Your task to perform on an android device: turn pop-ups off in chrome Image 0: 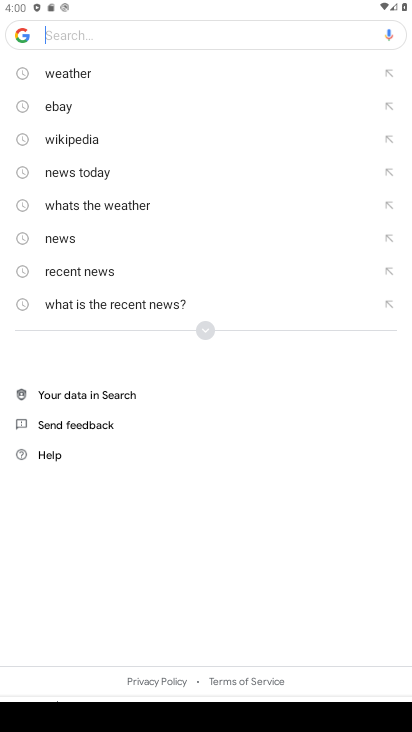
Step 0: press back button
Your task to perform on an android device: turn pop-ups off in chrome Image 1: 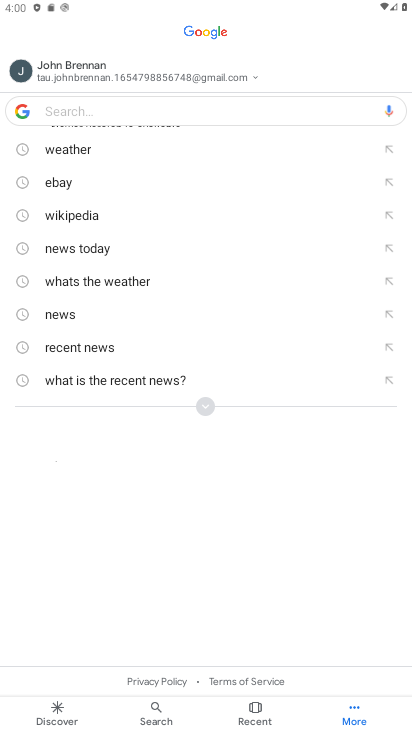
Step 1: press back button
Your task to perform on an android device: turn pop-ups off in chrome Image 2: 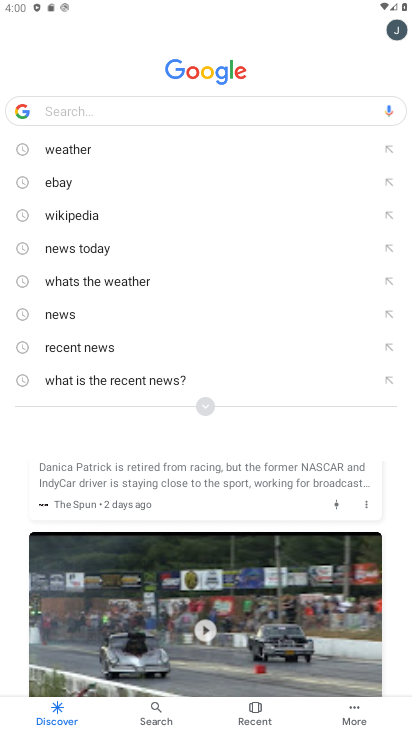
Step 2: drag from (392, 34) to (306, 587)
Your task to perform on an android device: turn pop-ups off in chrome Image 3: 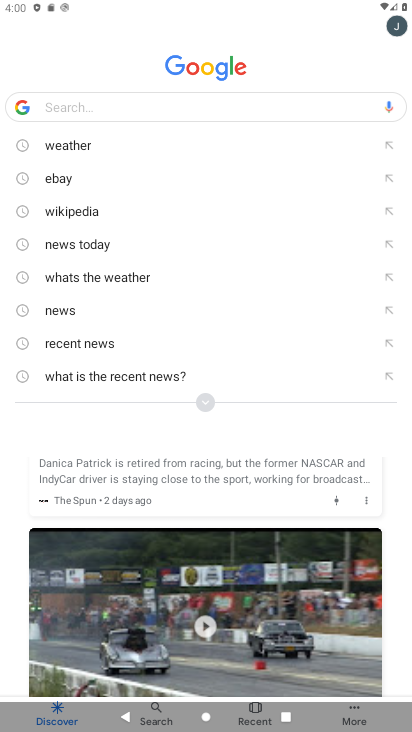
Step 3: drag from (394, 29) to (394, 352)
Your task to perform on an android device: turn pop-ups off in chrome Image 4: 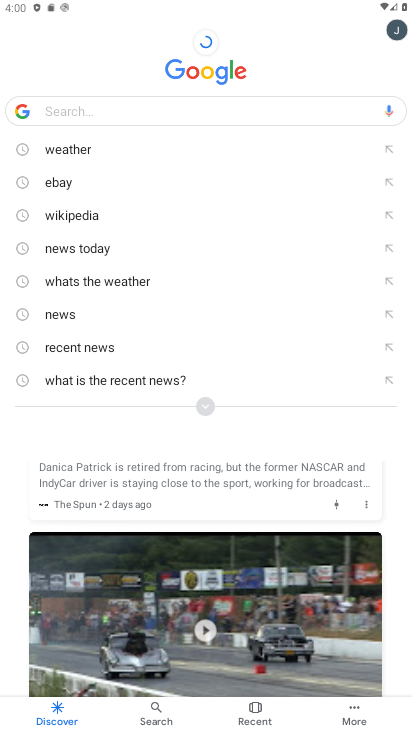
Step 4: drag from (395, 23) to (368, 332)
Your task to perform on an android device: turn pop-ups off in chrome Image 5: 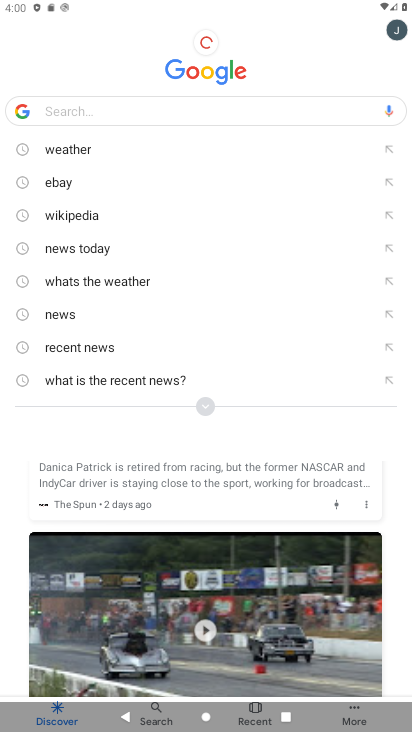
Step 5: drag from (391, 32) to (354, 295)
Your task to perform on an android device: turn pop-ups off in chrome Image 6: 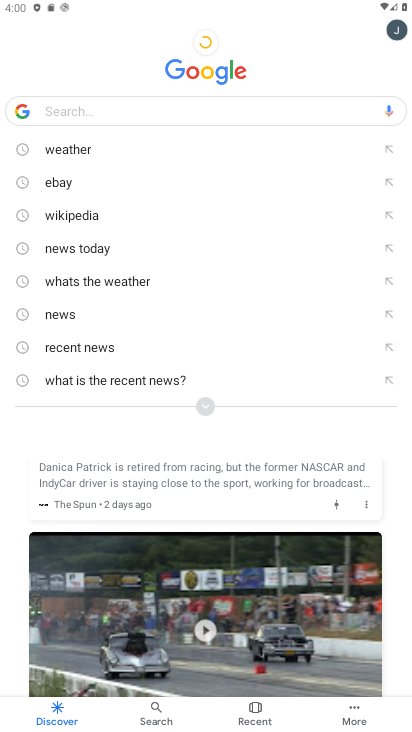
Step 6: click (390, 45)
Your task to perform on an android device: turn pop-ups off in chrome Image 7: 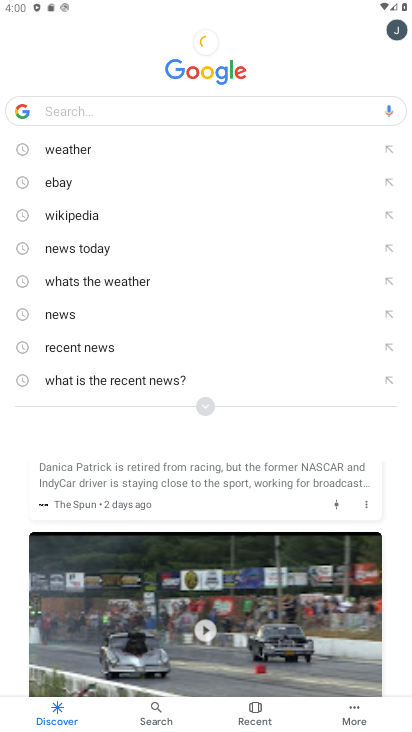
Step 7: click (390, 45)
Your task to perform on an android device: turn pop-ups off in chrome Image 8: 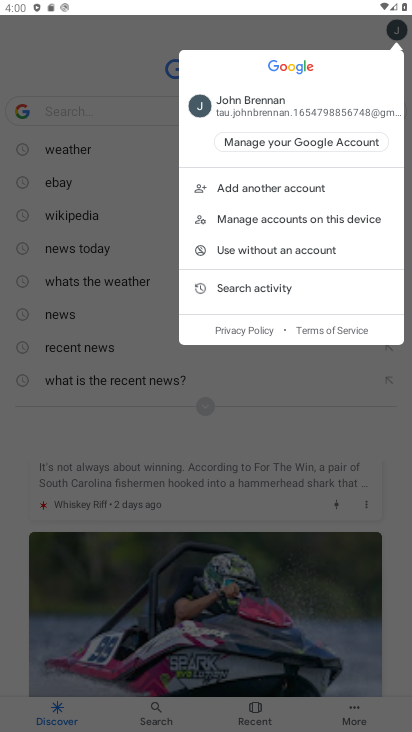
Step 8: click (252, 339)
Your task to perform on an android device: turn pop-ups off in chrome Image 9: 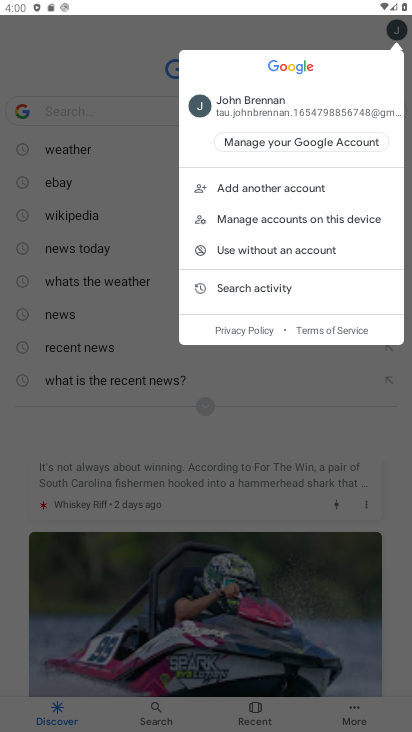
Step 9: drag from (254, 334) to (288, 325)
Your task to perform on an android device: turn pop-ups off in chrome Image 10: 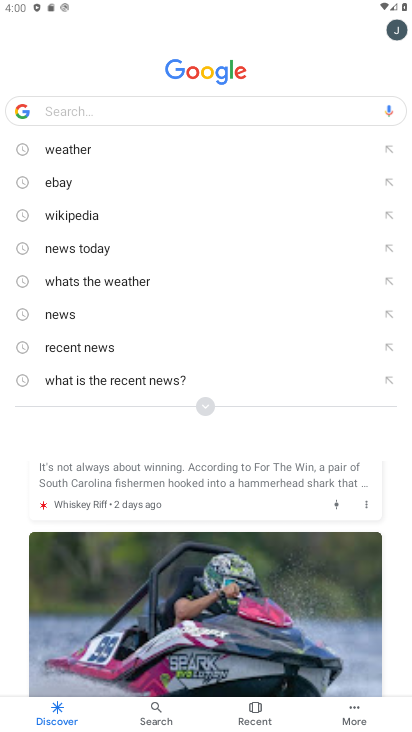
Step 10: press back button
Your task to perform on an android device: turn pop-ups off in chrome Image 11: 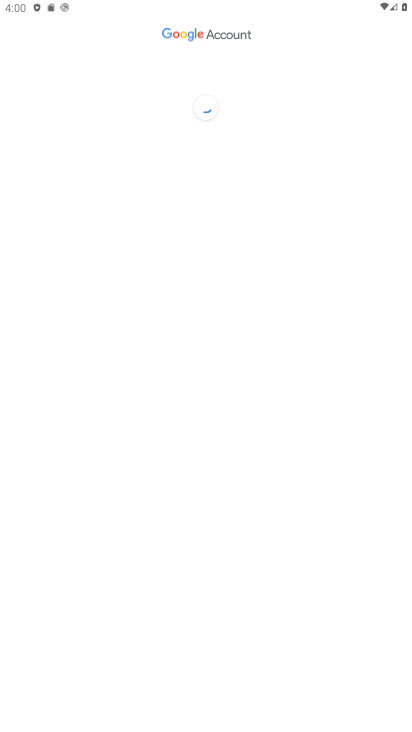
Step 11: press back button
Your task to perform on an android device: turn pop-ups off in chrome Image 12: 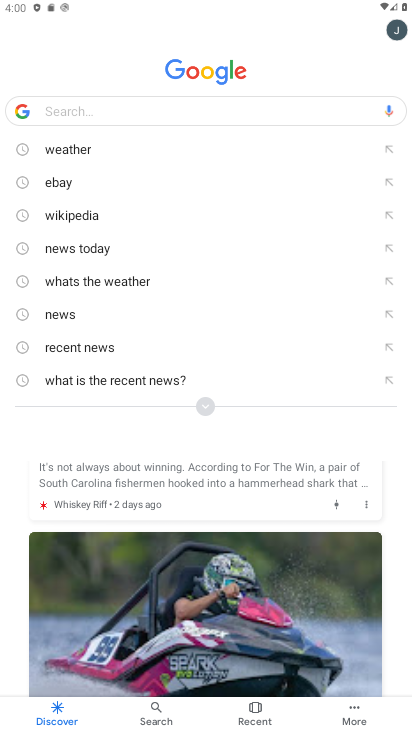
Step 12: press home button
Your task to perform on an android device: turn pop-ups off in chrome Image 13: 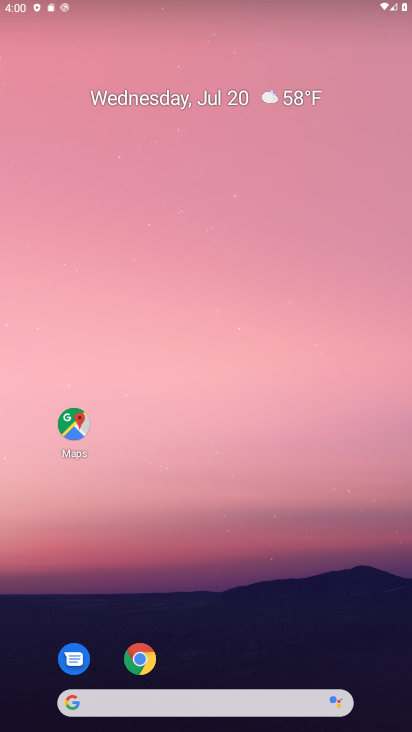
Step 13: press back button
Your task to perform on an android device: turn pop-ups off in chrome Image 14: 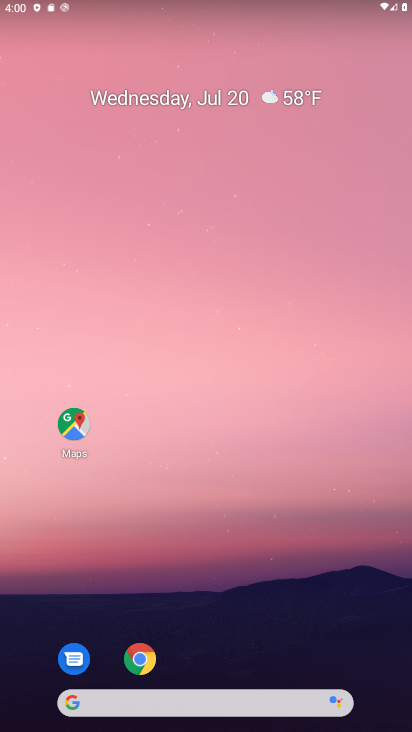
Step 14: drag from (234, 510) to (224, 186)
Your task to perform on an android device: turn pop-ups off in chrome Image 15: 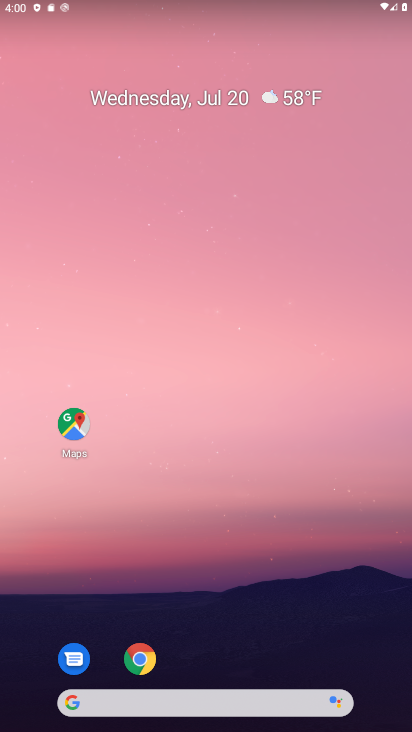
Step 15: drag from (241, 586) to (192, 216)
Your task to perform on an android device: turn pop-ups off in chrome Image 16: 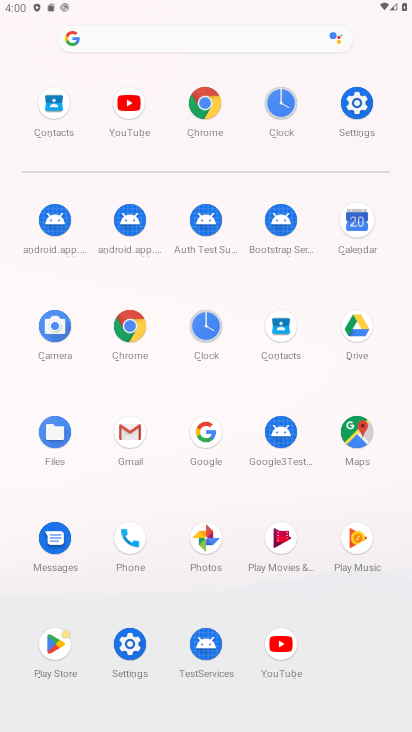
Step 16: click (205, 109)
Your task to perform on an android device: turn pop-ups off in chrome Image 17: 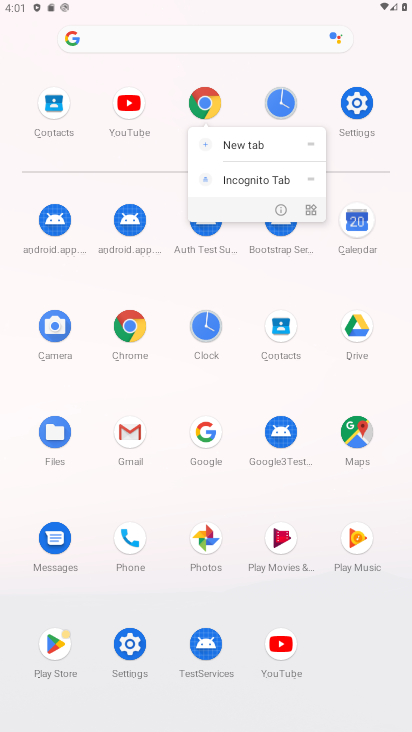
Step 17: click (273, 210)
Your task to perform on an android device: turn pop-ups off in chrome Image 18: 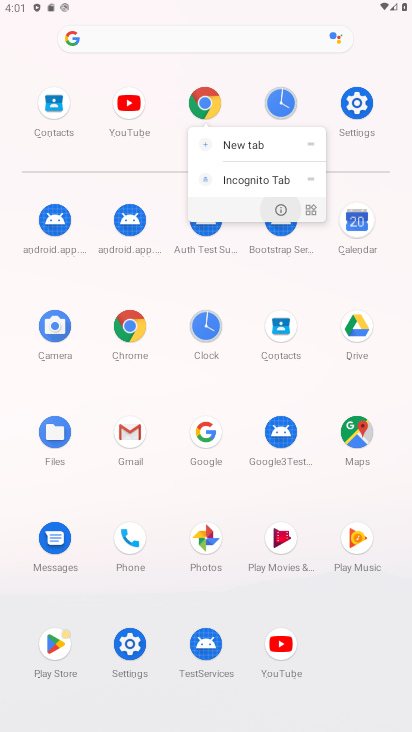
Step 18: click (275, 208)
Your task to perform on an android device: turn pop-ups off in chrome Image 19: 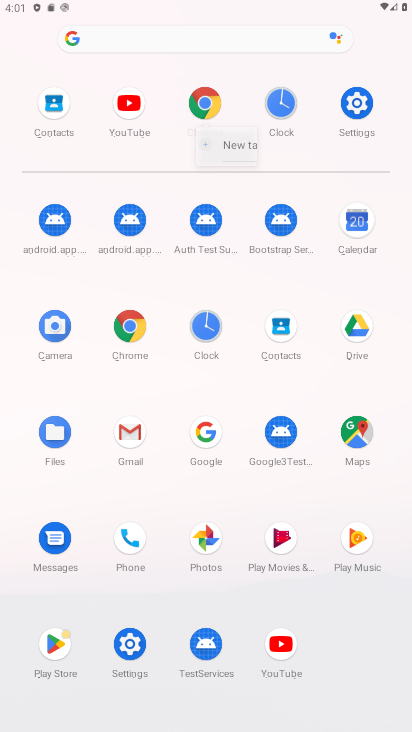
Step 19: click (275, 208)
Your task to perform on an android device: turn pop-ups off in chrome Image 20: 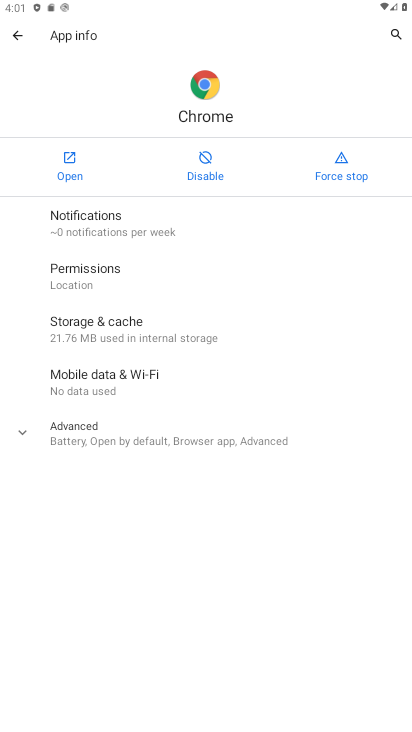
Step 20: click (84, 229)
Your task to perform on an android device: turn pop-ups off in chrome Image 21: 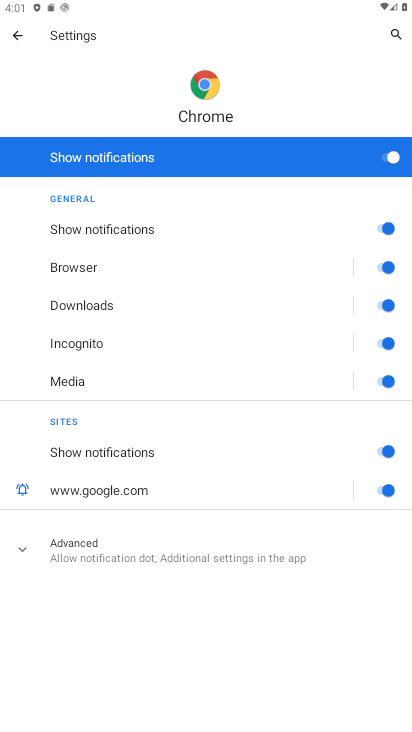
Step 21: click (82, 548)
Your task to perform on an android device: turn pop-ups off in chrome Image 22: 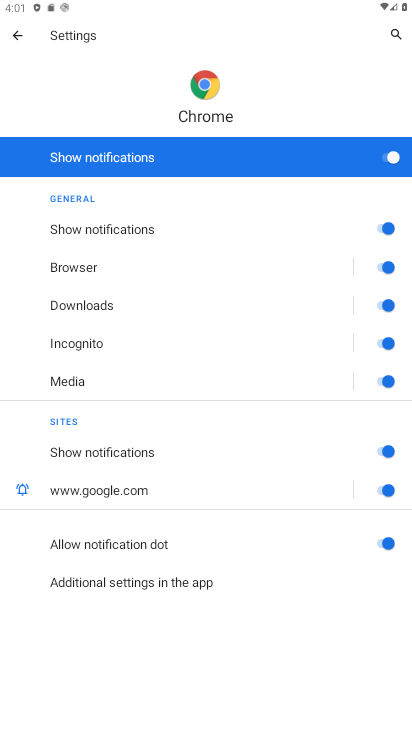
Step 22: click (12, 40)
Your task to perform on an android device: turn pop-ups off in chrome Image 23: 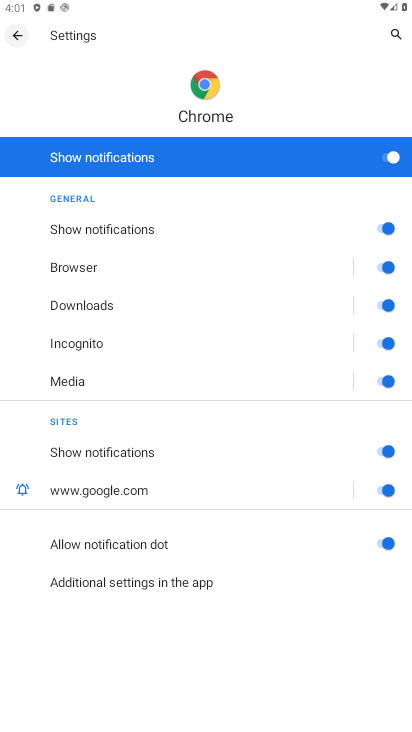
Step 23: click (11, 39)
Your task to perform on an android device: turn pop-ups off in chrome Image 24: 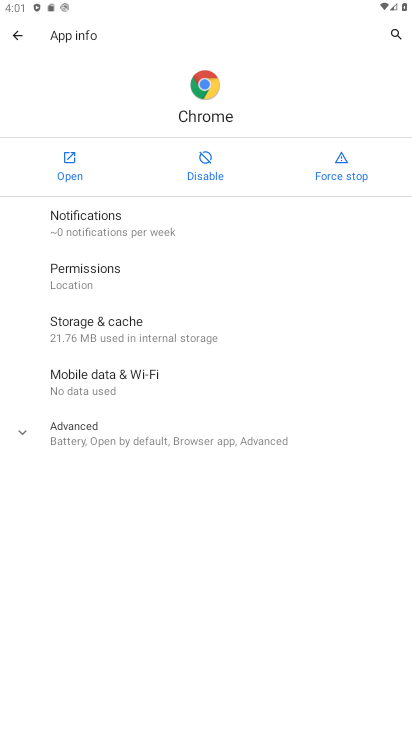
Step 24: click (76, 440)
Your task to perform on an android device: turn pop-ups off in chrome Image 25: 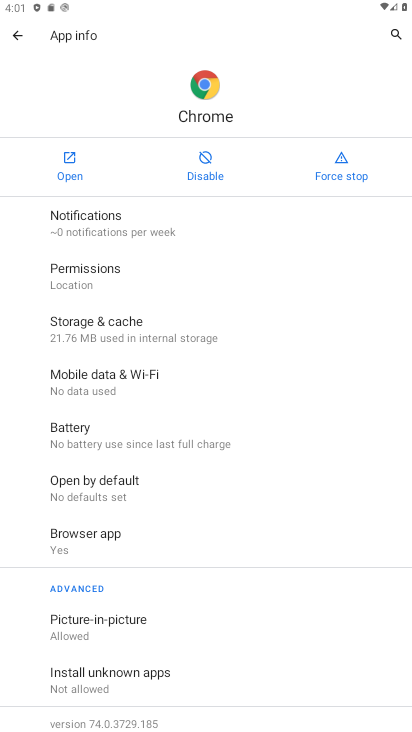
Step 25: click (66, 621)
Your task to perform on an android device: turn pop-ups off in chrome Image 26: 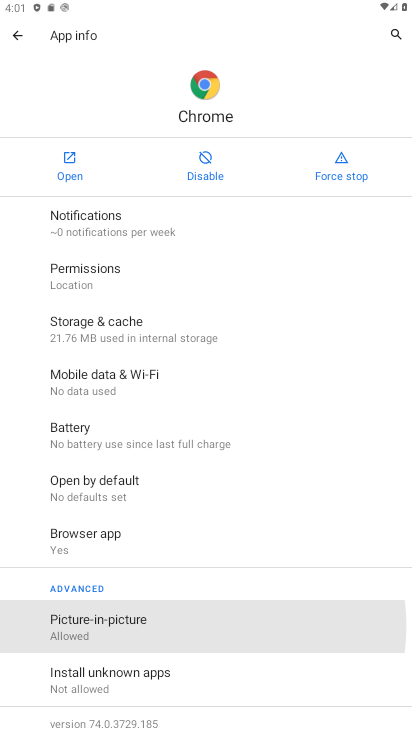
Step 26: click (64, 623)
Your task to perform on an android device: turn pop-ups off in chrome Image 27: 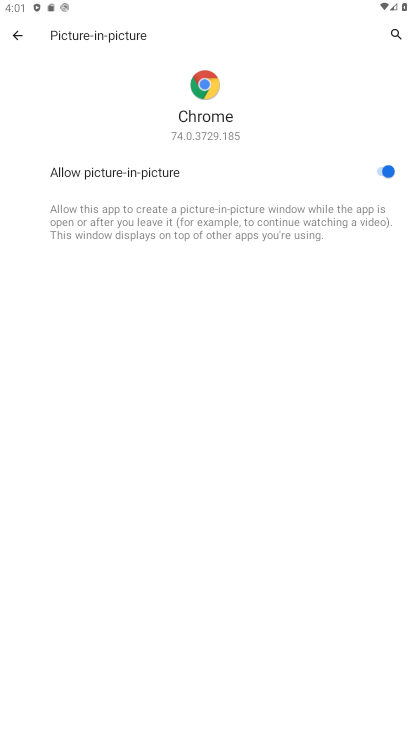
Step 27: click (15, 39)
Your task to perform on an android device: turn pop-ups off in chrome Image 28: 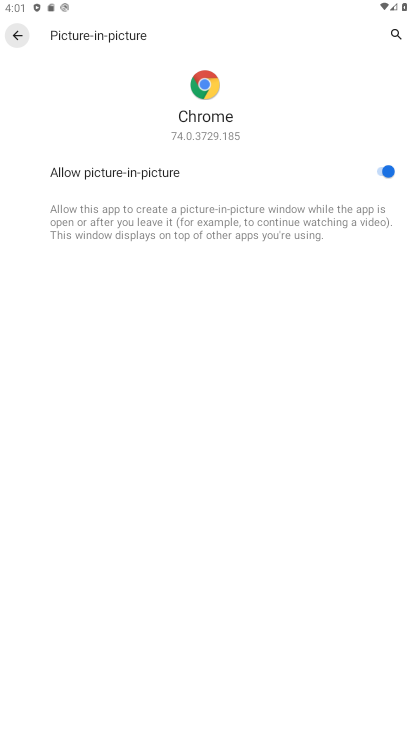
Step 28: click (16, 26)
Your task to perform on an android device: turn pop-ups off in chrome Image 29: 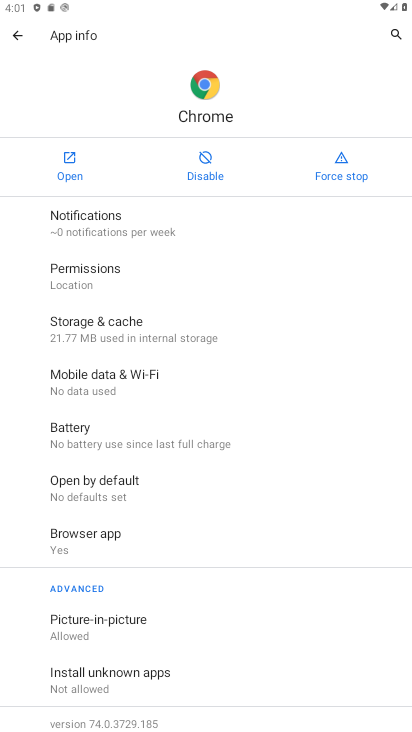
Step 29: click (23, 47)
Your task to perform on an android device: turn pop-ups off in chrome Image 30: 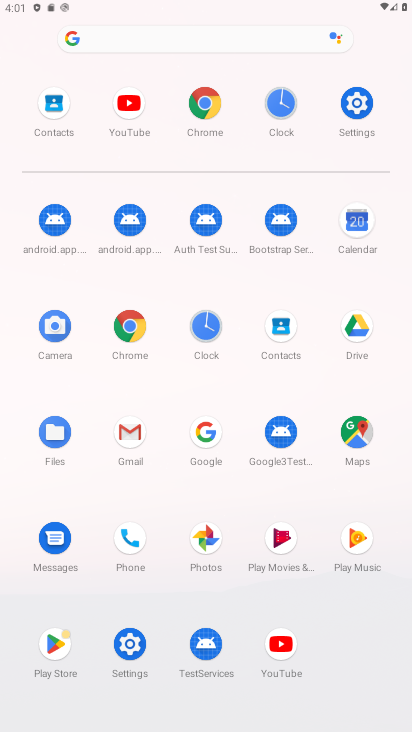
Step 30: click (202, 118)
Your task to perform on an android device: turn pop-ups off in chrome Image 31: 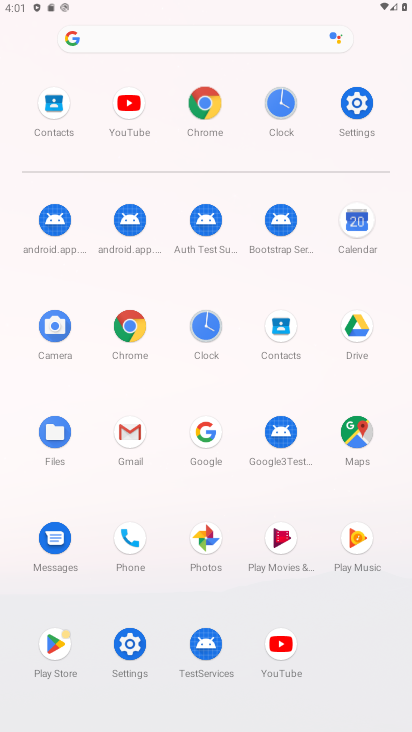
Step 31: click (203, 114)
Your task to perform on an android device: turn pop-ups off in chrome Image 32: 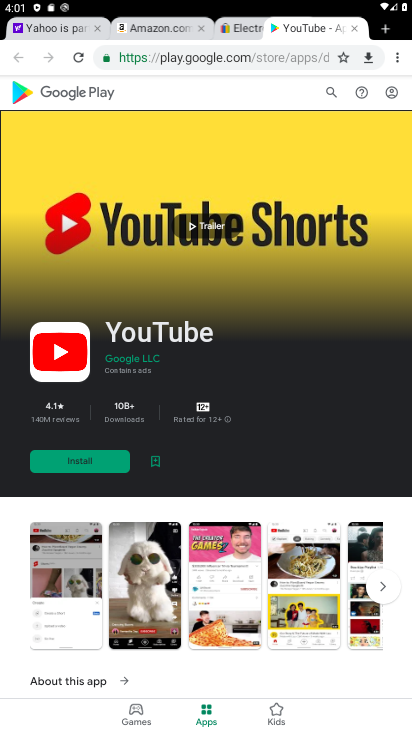
Step 32: drag from (388, 60) to (275, 382)
Your task to perform on an android device: turn pop-ups off in chrome Image 33: 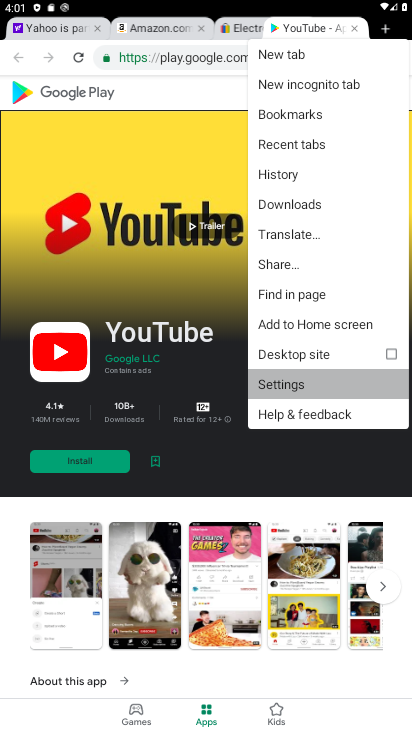
Step 33: click (275, 383)
Your task to perform on an android device: turn pop-ups off in chrome Image 34: 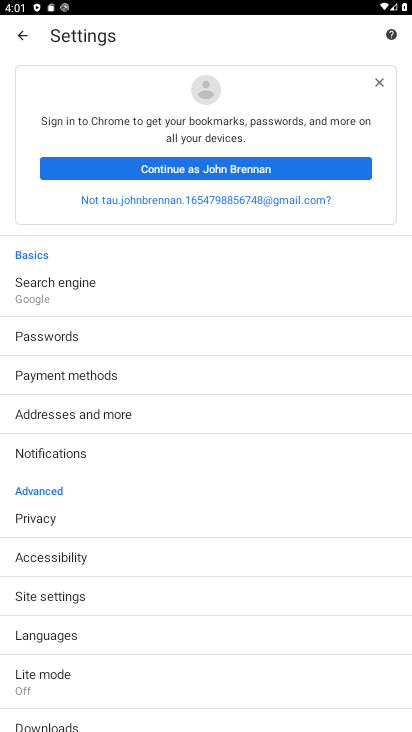
Step 34: drag from (108, 642) to (66, 172)
Your task to perform on an android device: turn pop-ups off in chrome Image 35: 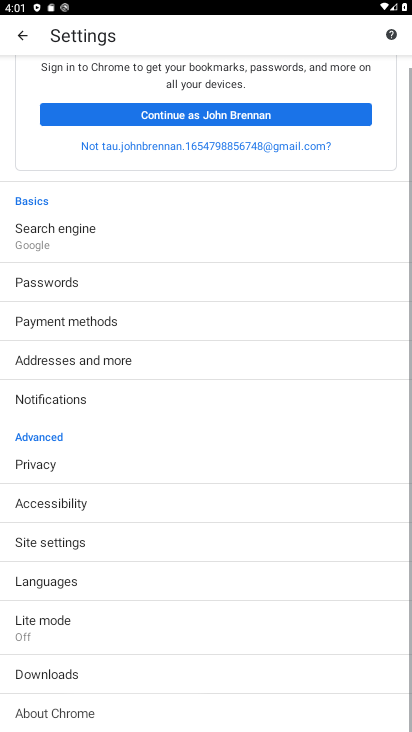
Step 35: drag from (86, 510) to (65, 236)
Your task to perform on an android device: turn pop-ups off in chrome Image 36: 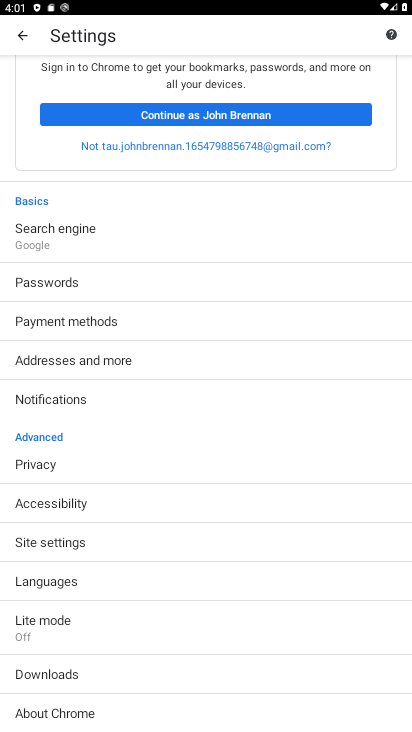
Step 36: drag from (85, 616) to (72, 298)
Your task to perform on an android device: turn pop-ups off in chrome Image 37: 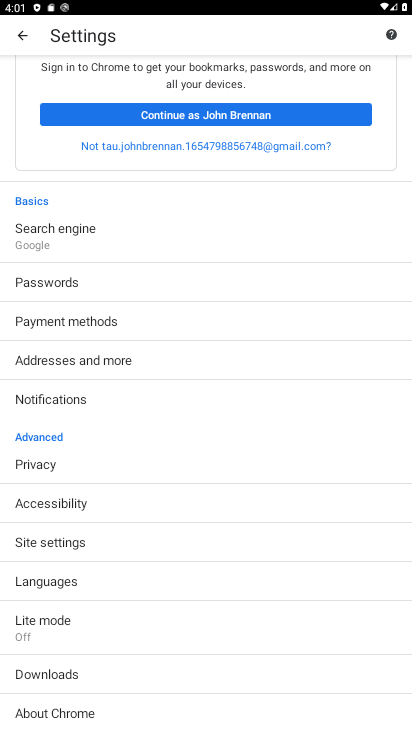
Step 37: drag from (103, 545) to (16, 100)
Your task to perform on an android device: turn pop-ups off in chrome Image 38: 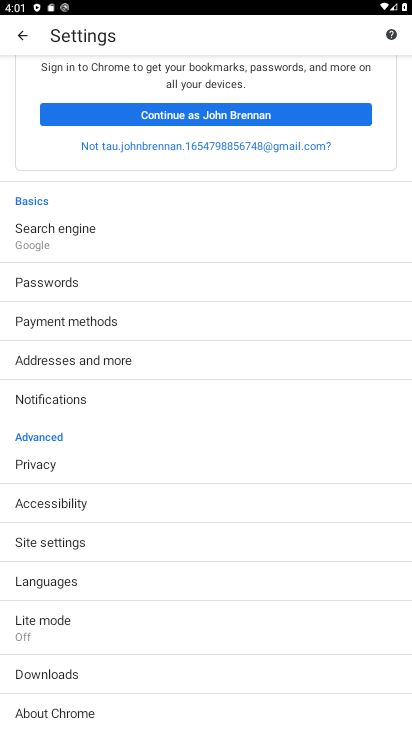
Step 38: drag from (60, 547) to (17, 283)
Your task to perform on an android device: turn pop-ups off in chrome Image 39: 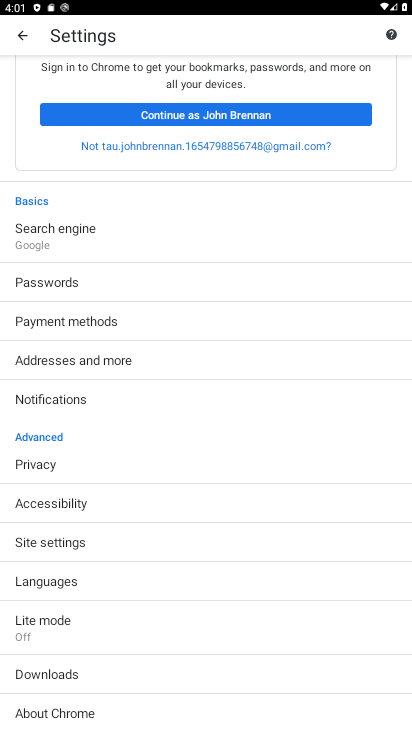
Step 39: drag from (83, 561) to (40, 283)
Your task to perform on an android device: turn pop-ups off in chrome Image 40: 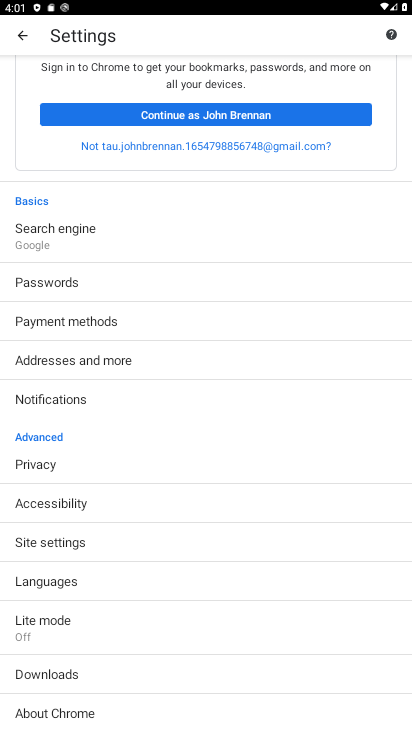
Step 40: drag from (75, 572) to (64, 266)
Your task to perform on an android device: turn pop-ups off in chrome Image 41: 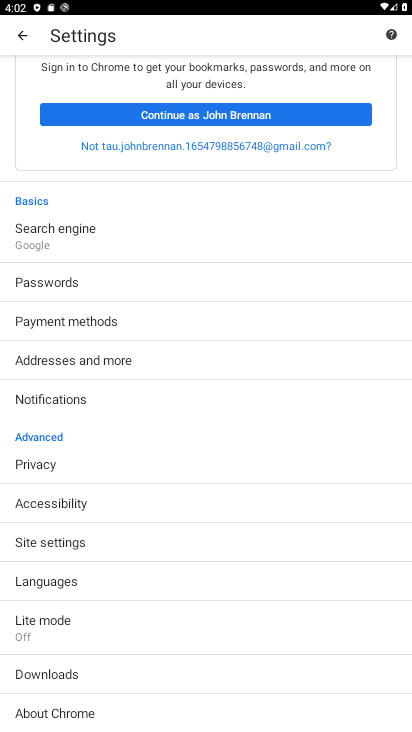
Step 41: click (35, 542)
Your task to perform on an android device: turn pop-ups off in chrome Image 42: 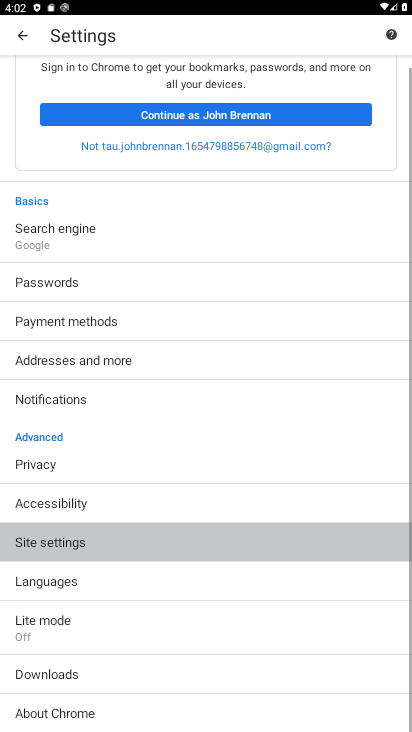
Step 42: click (36, 541)
Your task to perform on an android device: turn pop-ups off in chrome Image 43: 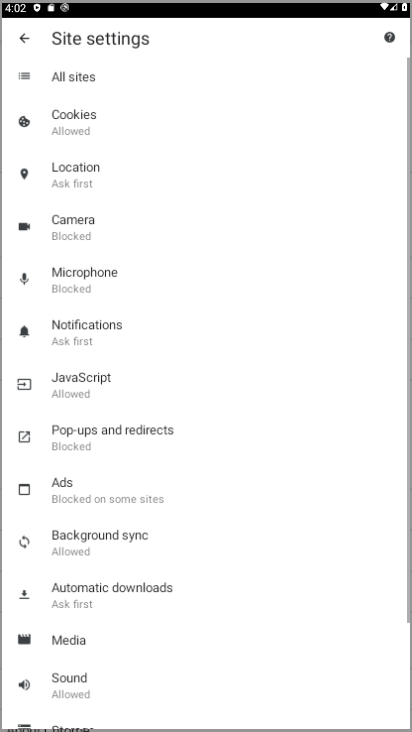
Step 43: click (40, 541)
Your task to perform on an android device: turn pop-ups off in chrome Image 44: 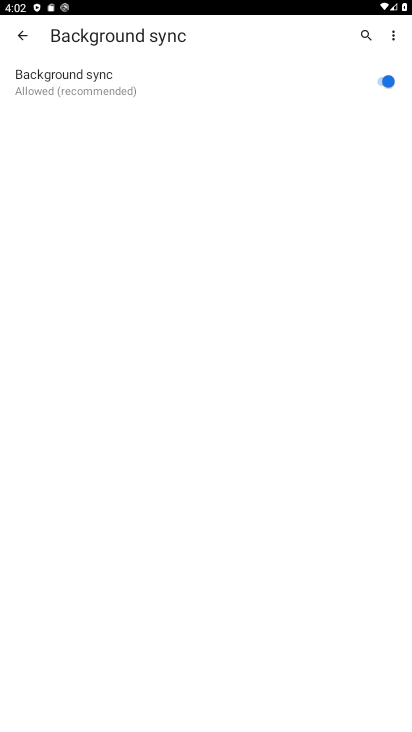
Step 44: click (28, 28)
Your task to perform on an android device: turn pop-ups off in chrome Image 45: 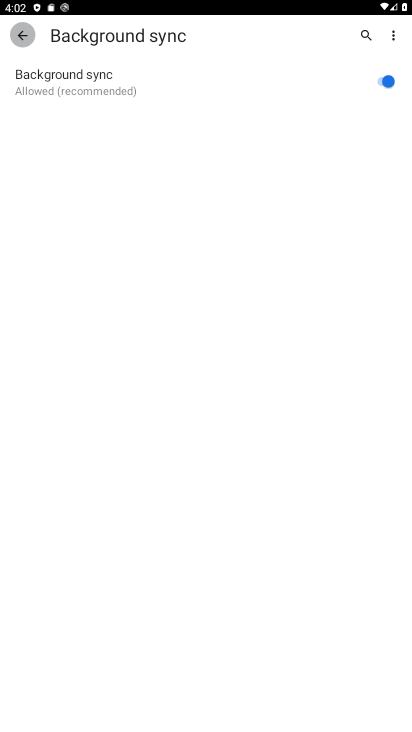
Step 45: click (22, 29)
Your task to perform on an android device: turn pop-ups off in chrome Image 46: 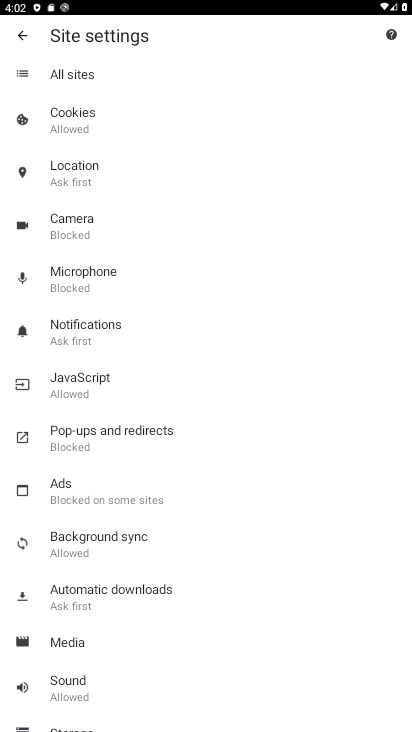
Step 46: click (58, 438)
Your task to perform on an android device: turn pop-ups off in chrome Image 47: 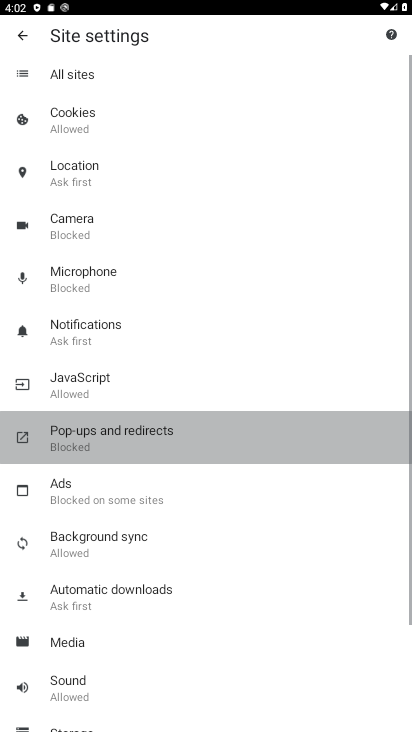
Step 47: click (57, 440)
Your task to perform on an android device: turn pop-ups off in chrome Image 48: 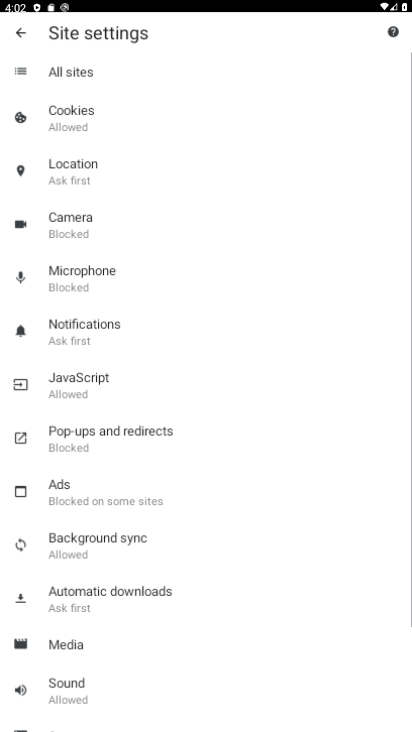
Step 48: click (73, 444)
Your task to perform on an android device: turn pop-ups off in chrome Image 49: 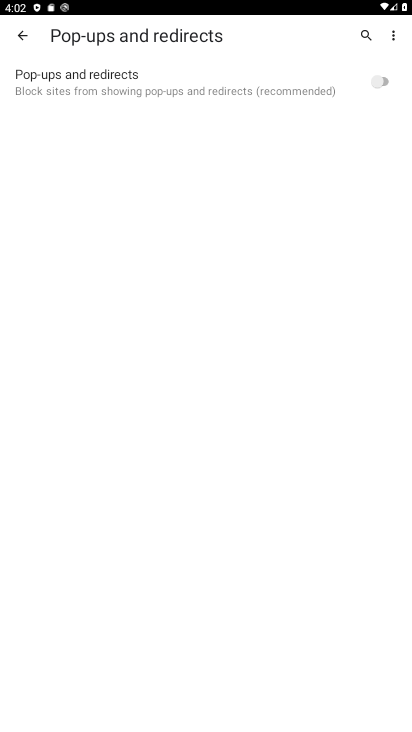
Step 49: task complete